Your task to perform on an android device: turn off data saver in the chrome app Image 0: 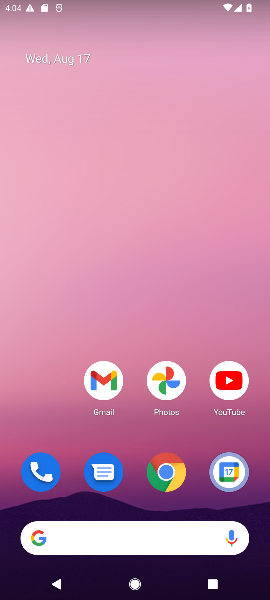
Step 0: drag from (120, 458) to (121, 149)
Your task to perform on an android device: turn off data saver in the chrome app Image 1: 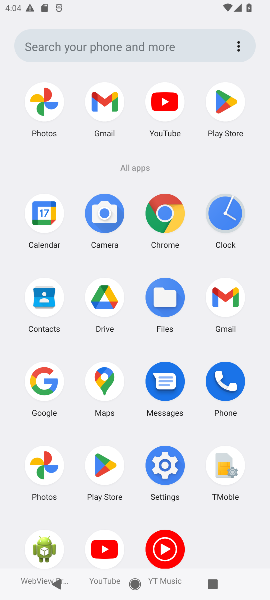
Step 1: click (160, 212)
Your task to perform on an android device: turn off data saver in the chrome app Image 2: 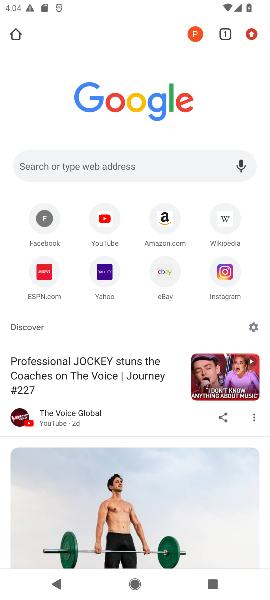
Step 2: click (245, 28)
Your task to perform on an android device: turn off data saver in the chrome app Image 3: 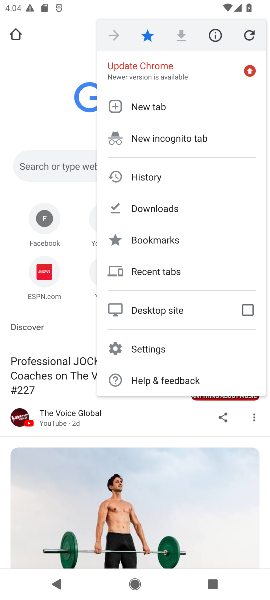
Step 3: click (148, 340)
Your task to perform on an android device: turn off data saver in the chrome app Image 4: 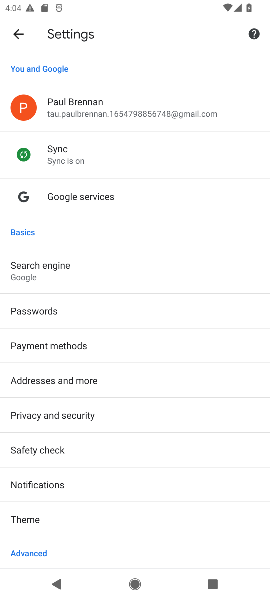
Step 4: drag from (77, 499) to (96, 274)
Your task to perform on an android device: turn off data saver in the chrome app Image 5: 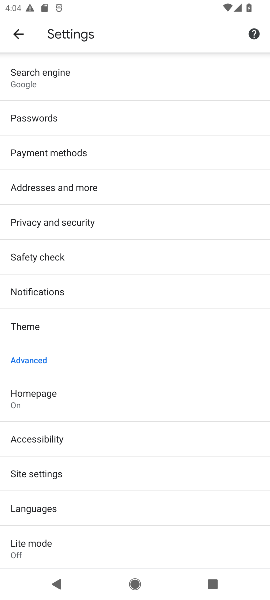
Step 5: click (56, 540)
Your task to perform on an android device: turn off data saver in the chrome app Image 6: 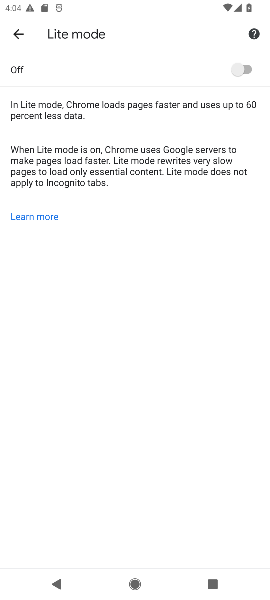
Step 6: task complete